Your task to perform on an android device: Check the news Image 0: 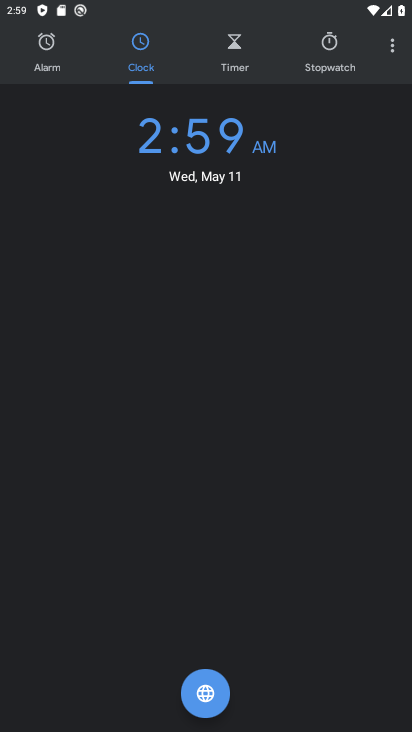
Step 0: press home button
Your task to perform on an android device: Check the news Image 1: 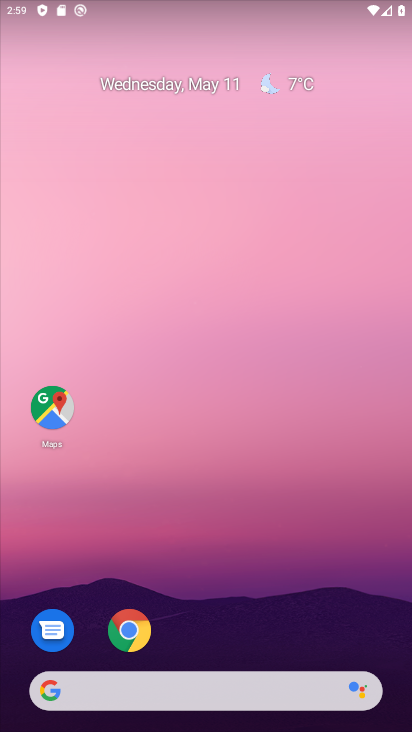
Step 1: task complete